Your task to perform on an android device: Go to sound settings Image 0: 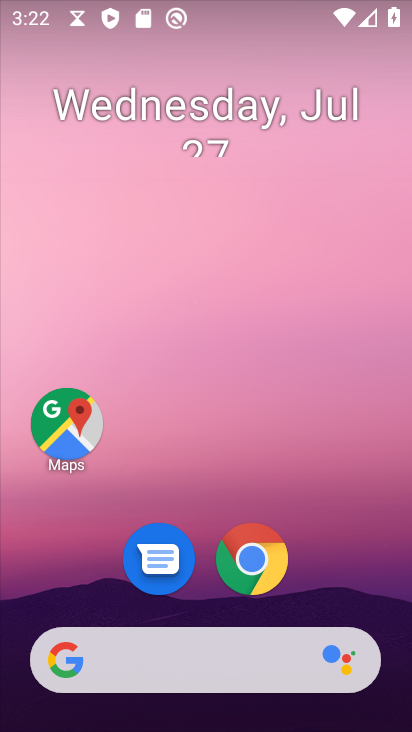
Step 0: drag from (213, 606) to (259, 9)
Your task to perform on an android device: Go to sound settings Image 1: 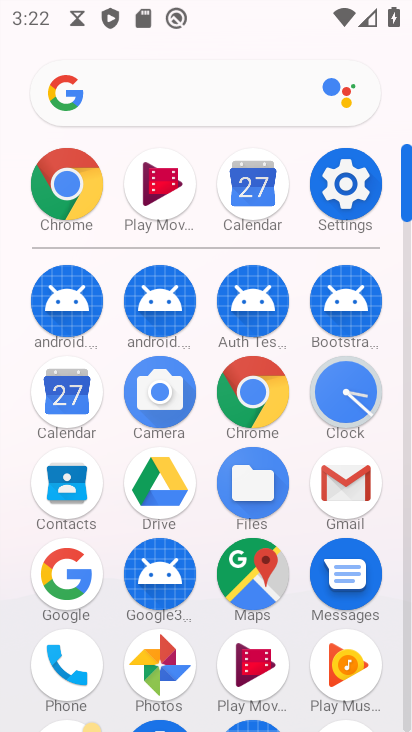
Step 1: click (353, 186)
Your task to perform on an android device: Go to sound settings Image 2: 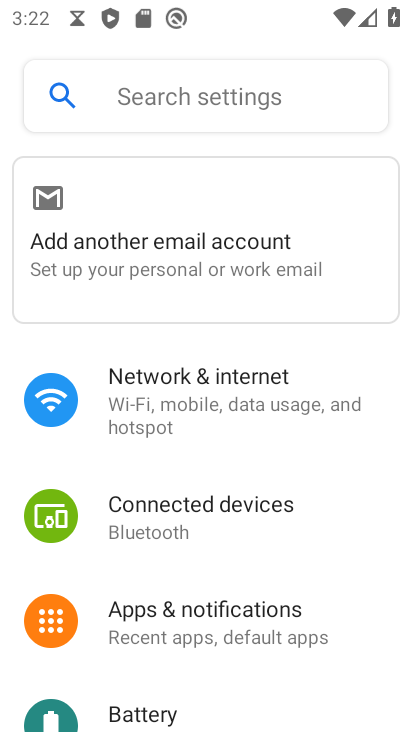
Step 2: drag from (177, 642) to (310, 72)
Your task to perform on an android device: Go to sound settings Image 3: 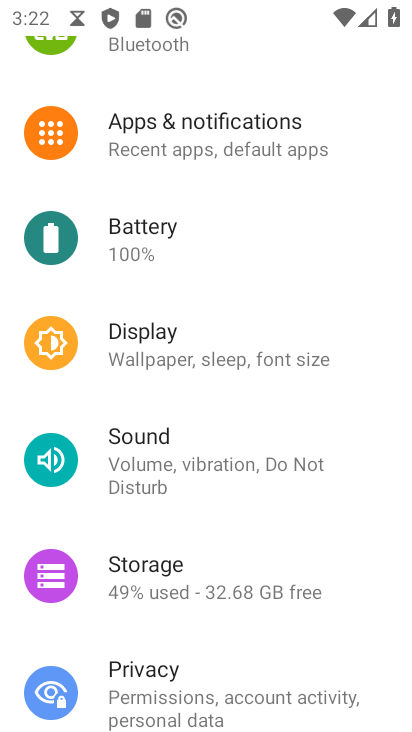
Step 3: click (134, 453)
Your task to perform on an android device: Go to sound settings Image 4: 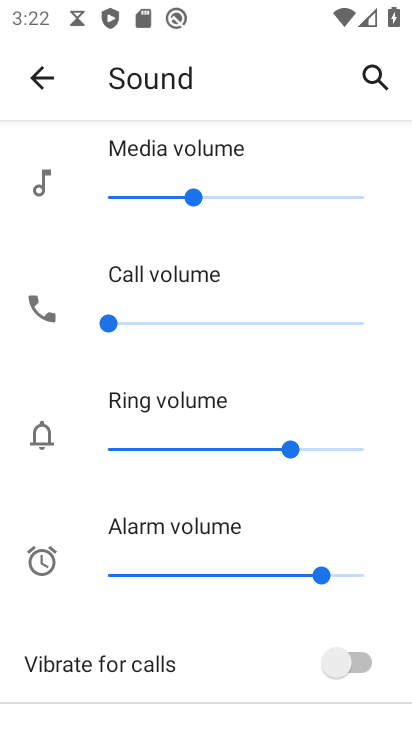
Step 4: task complete